Your task to perform on an android device: check data usage Image 0: 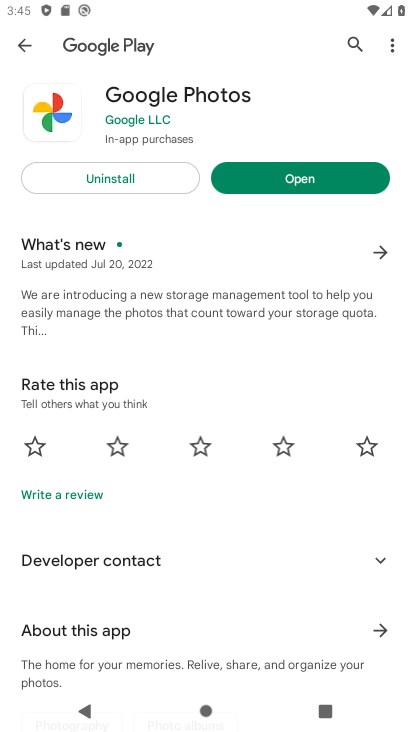
Step 0: press home button
Your task to perform on an android device: check data usage Image 1: 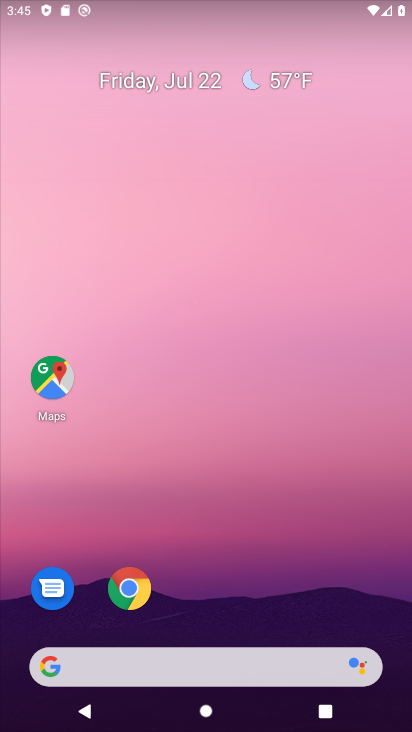
Step 1: drag from (222, 652) to (220, 45)
Your task to perform on an android device: check data usage Image 2: 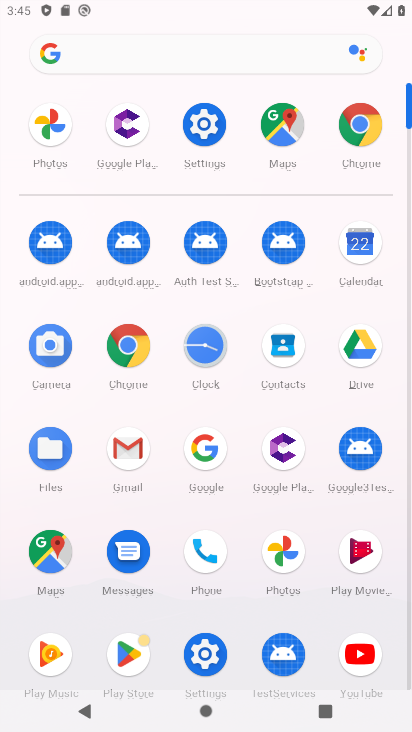
Step 2: click (196, 133)
Your task to perform on an android device: check data usage Image 3: 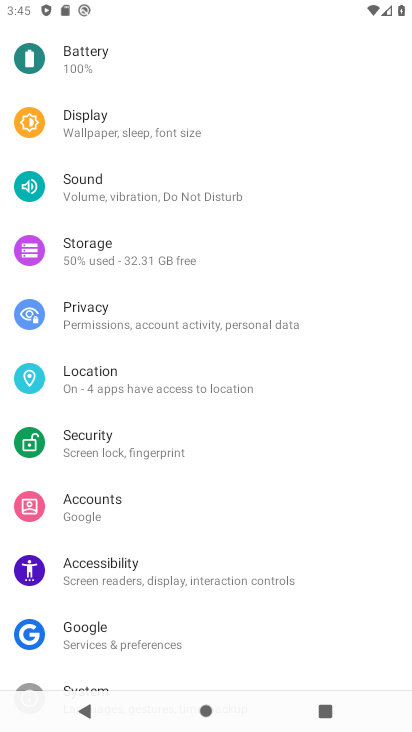
Step 3: drag from (121, 136) to (208, 666)
Your task to perform on an android device: check data usage Image 4: 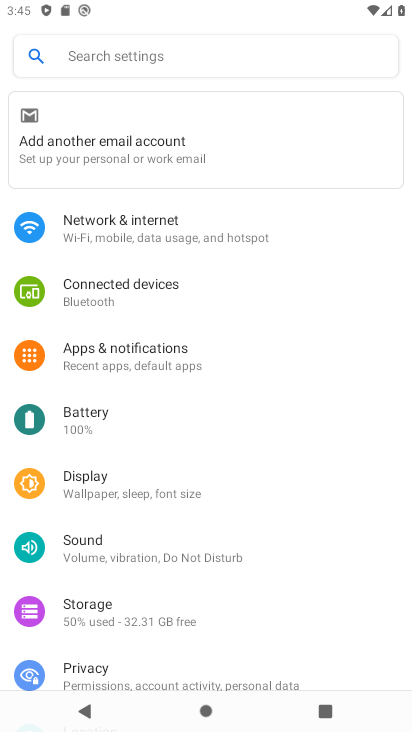
Step 4: click (159, 224)
Your task to perform on an android device: check data usage Image 5: 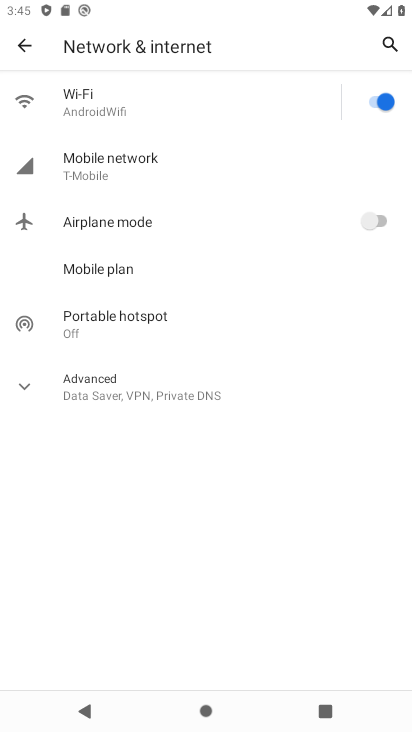
Step 5: click (126, 163)
Your task to perform on an android device: check data usage Image 6: 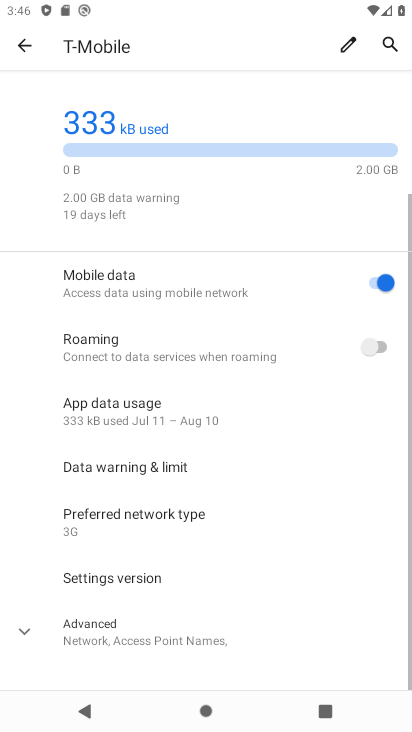
Step 6: task complete